Your task to perform on an android device: What time is it in Beijing? Image 0: 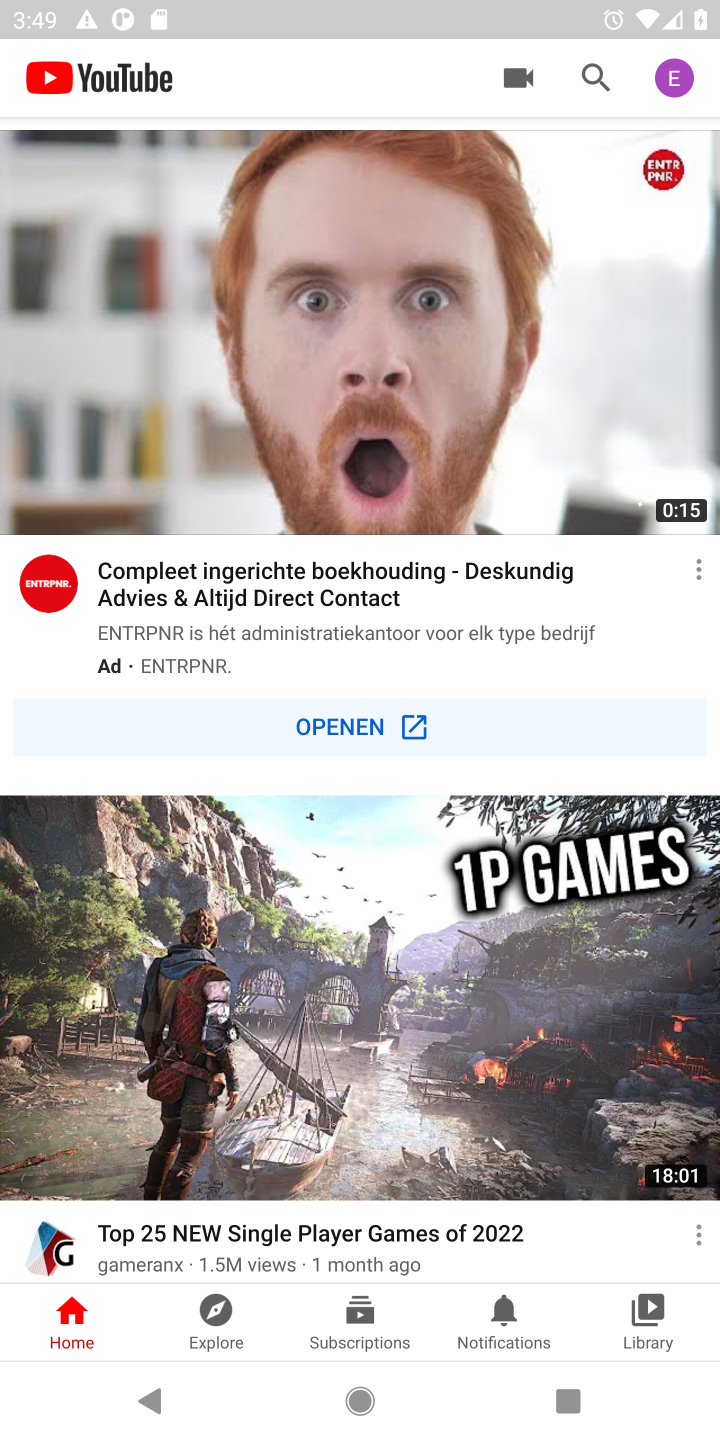
Step 0: press home button
Your task to perform on an android device: What time is it in Beijing? Image 1: 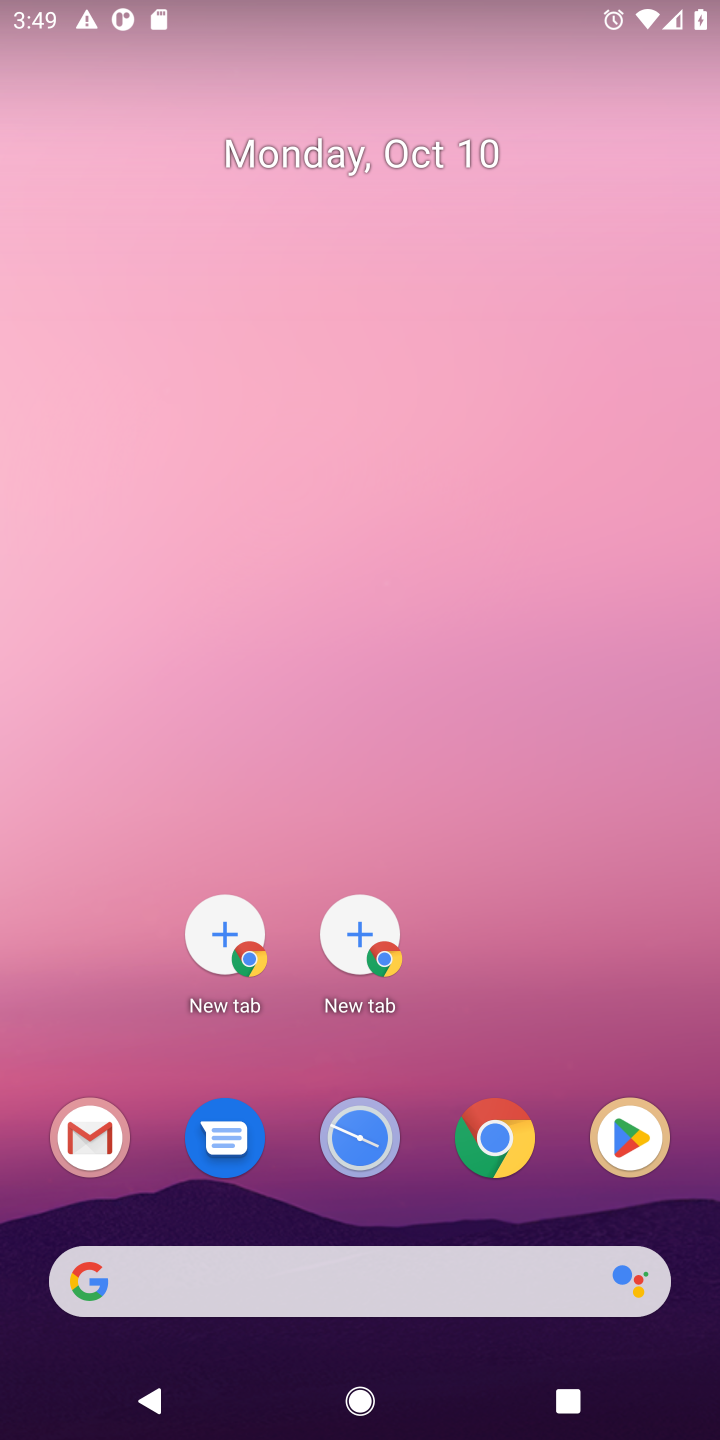
Step 1: click (523, 1137)
Your task to perform on an android device: What time is it in Beijing? Image 2: 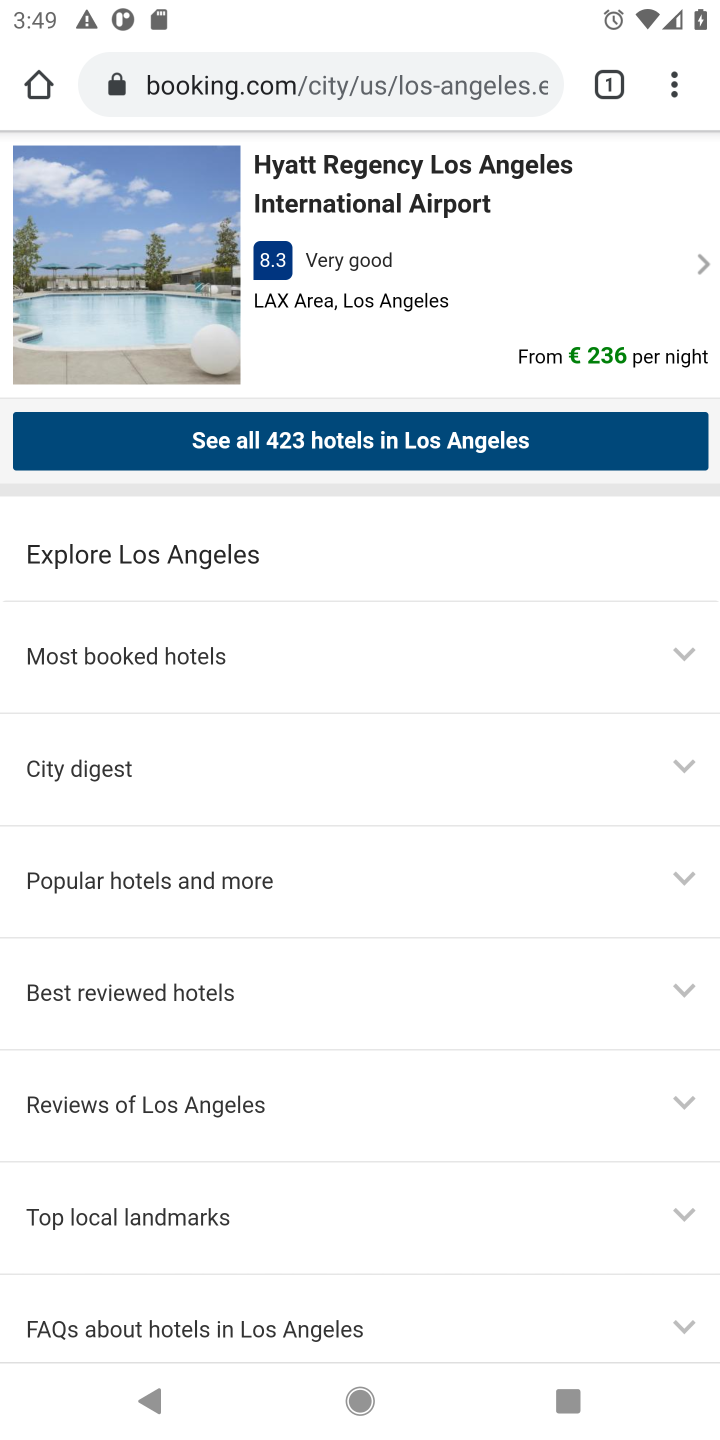
Step 2: click (384, 76)
Your task to perform on an android device: What time is it in Beijing? Image 3: 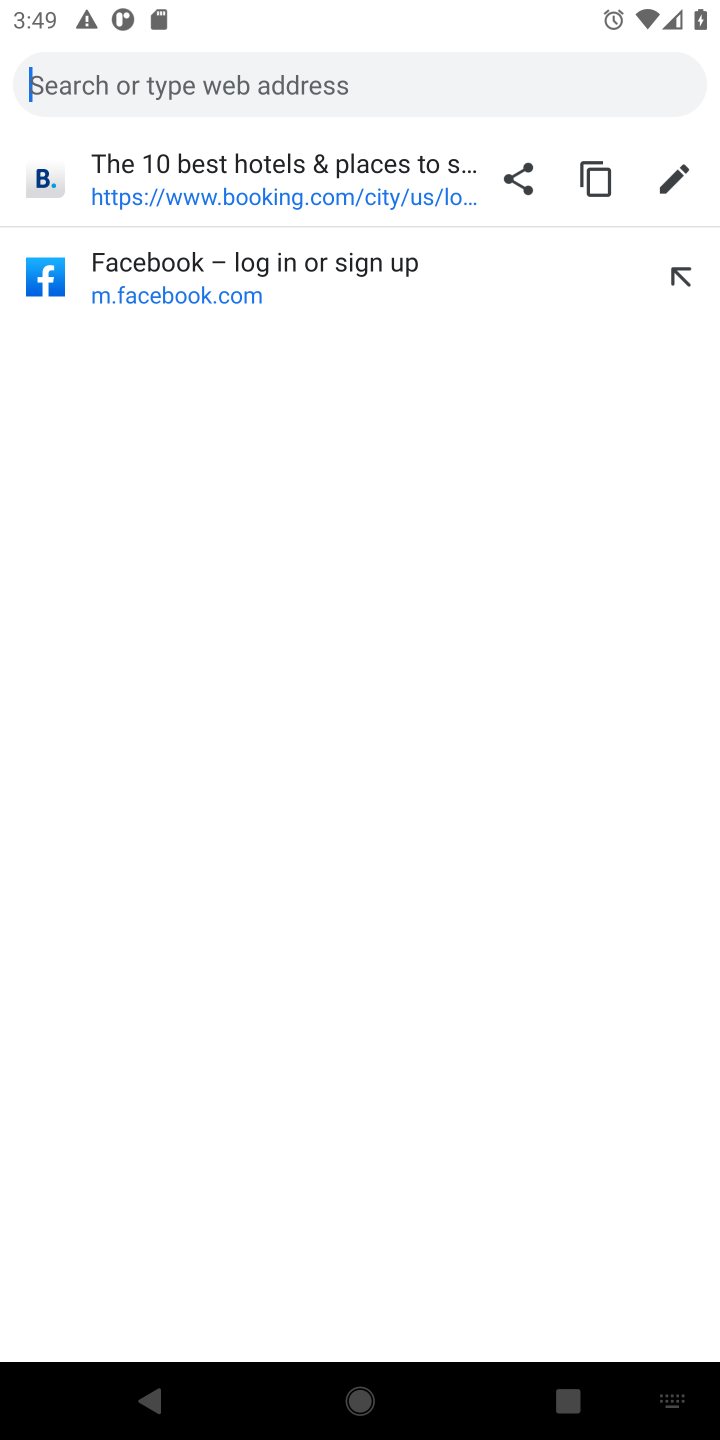
Step 3: type "time in Beijing"
Your task to perform on an android device: What time is it in Beijing? Image 4: 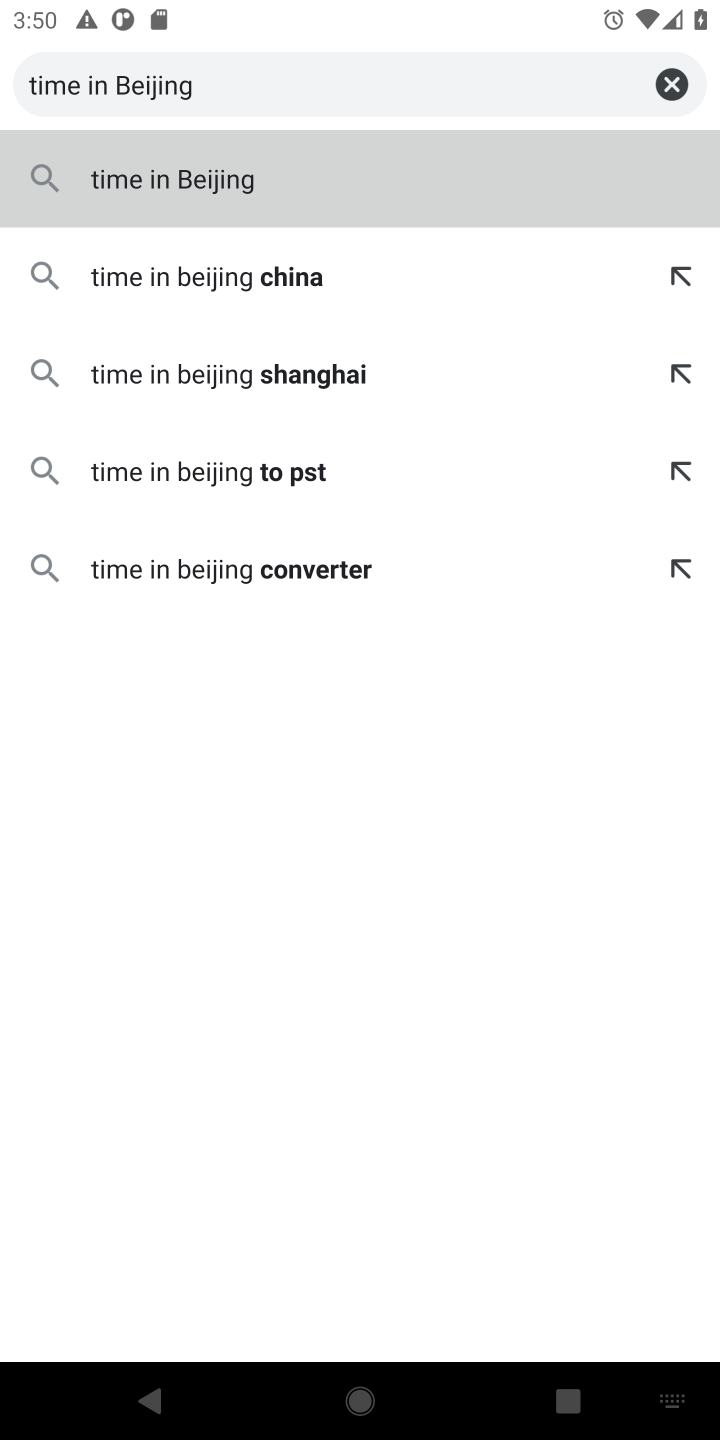
Step 4: press enter
Your task to perform on an android device: What time is it in Beijing? Image 5: 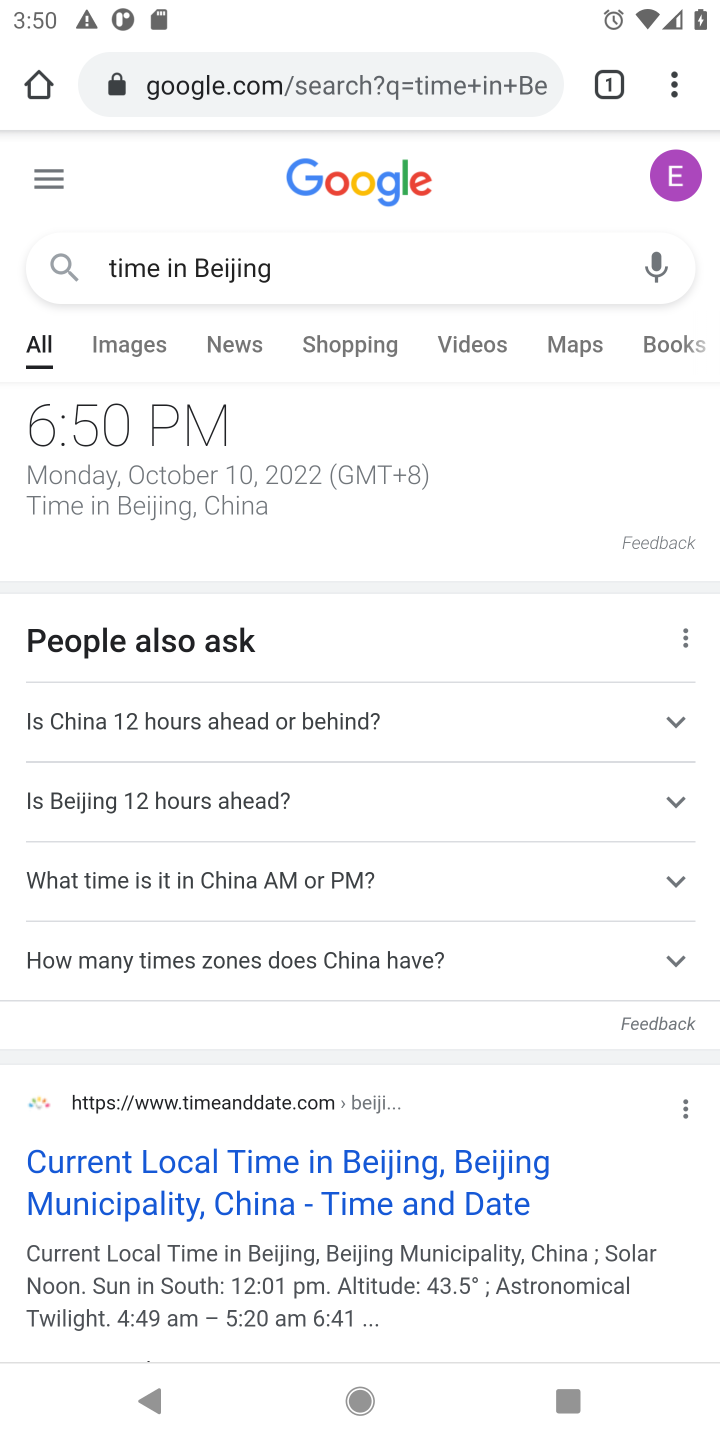
Step 5: task complete